Your task to perform on an android device: Open Google Chrome and click the shortcut for Amazon.com Image 0: 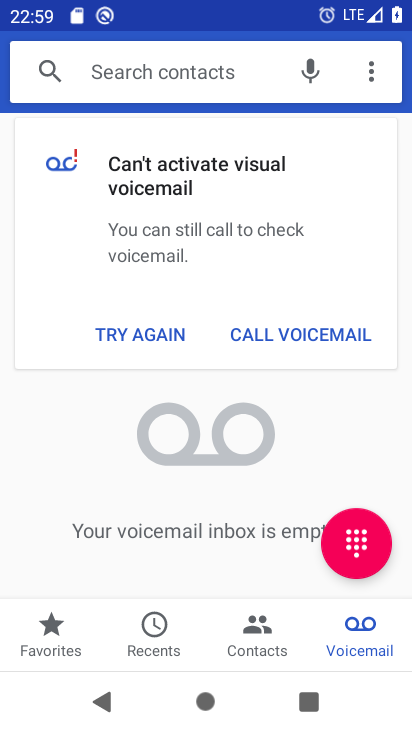
Step 0: press home button
Your task to perform on an android device: Open Google Chrome and click the shortcut for Amazon.com Image 1: 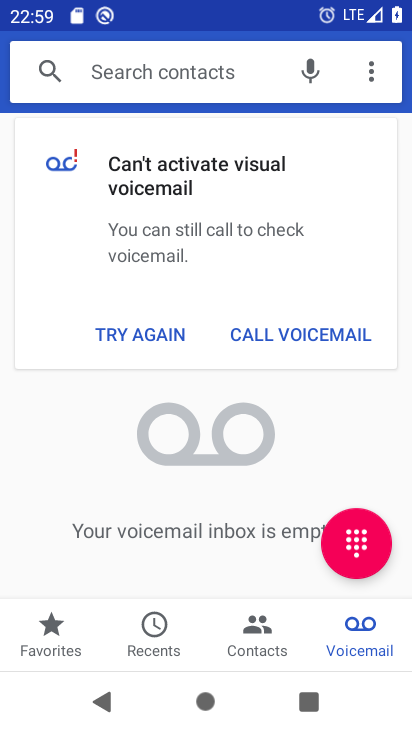
Step 1: press home button
Your task to perform on an android device: Open Google Chrome and click the shortcut for Amazon.com Image 2: 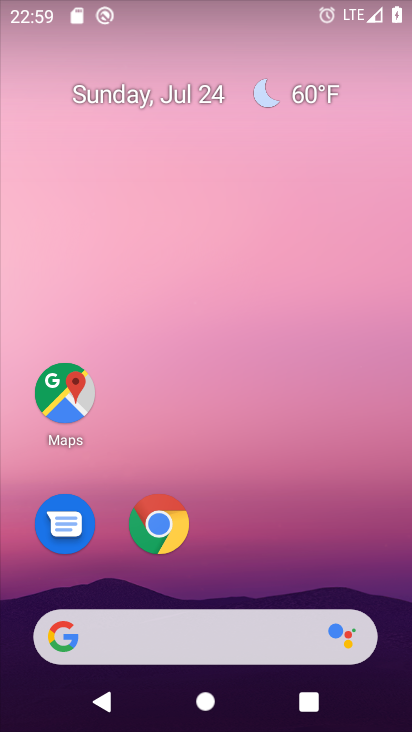
Step 2: click (167, 525)
Your task to perform on an android device: Open Google Chrome and click the shortcut for Amazon.com Image 3: 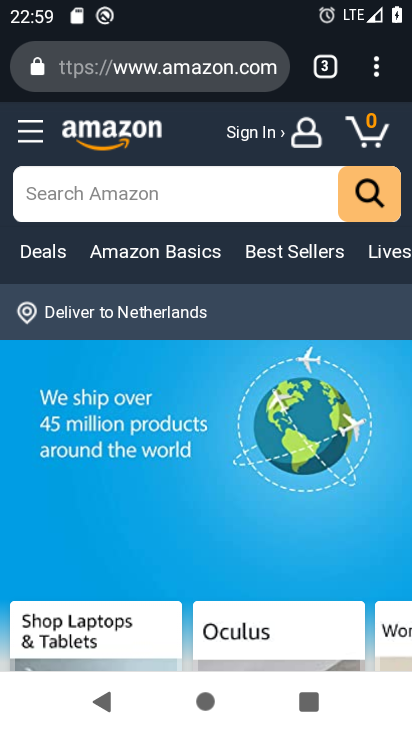
Step 3: task complete